Your task to perform on an android device: Go to Amazon Image 0: 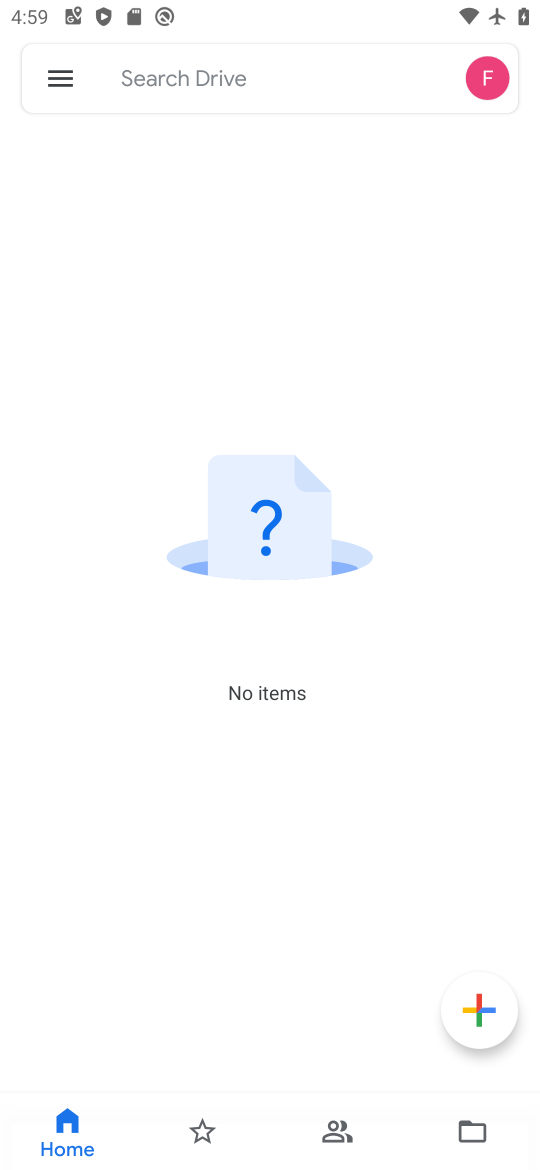
Step 0: press home button
Your task to perform on an android device: Go to Amazon Image 1: 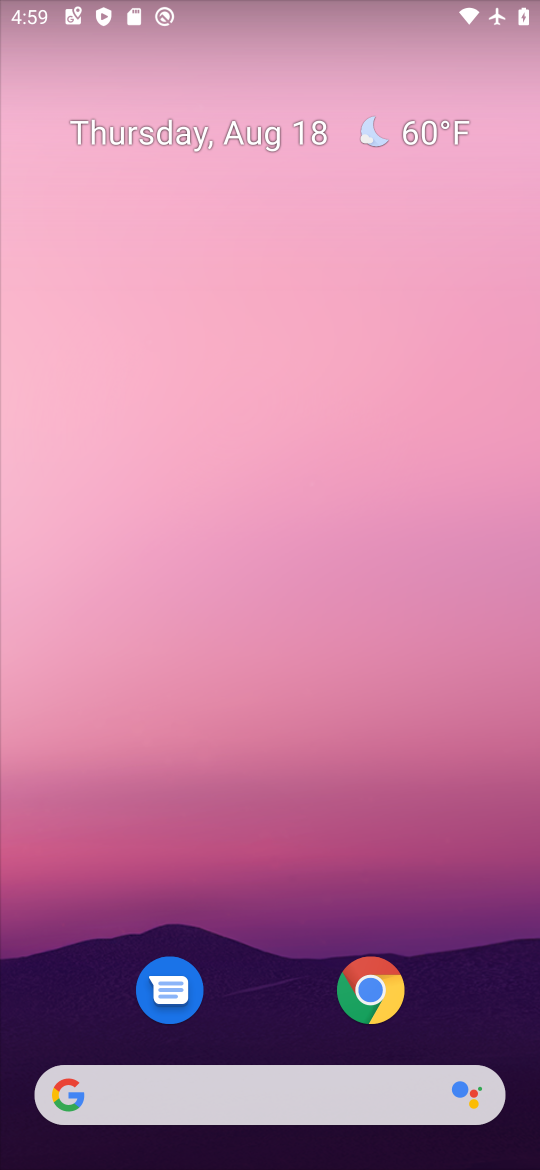
Step 1: drag from (287, 850) to (337, 97)
Your task to perform on an android device: Go to Amazon Image 2: 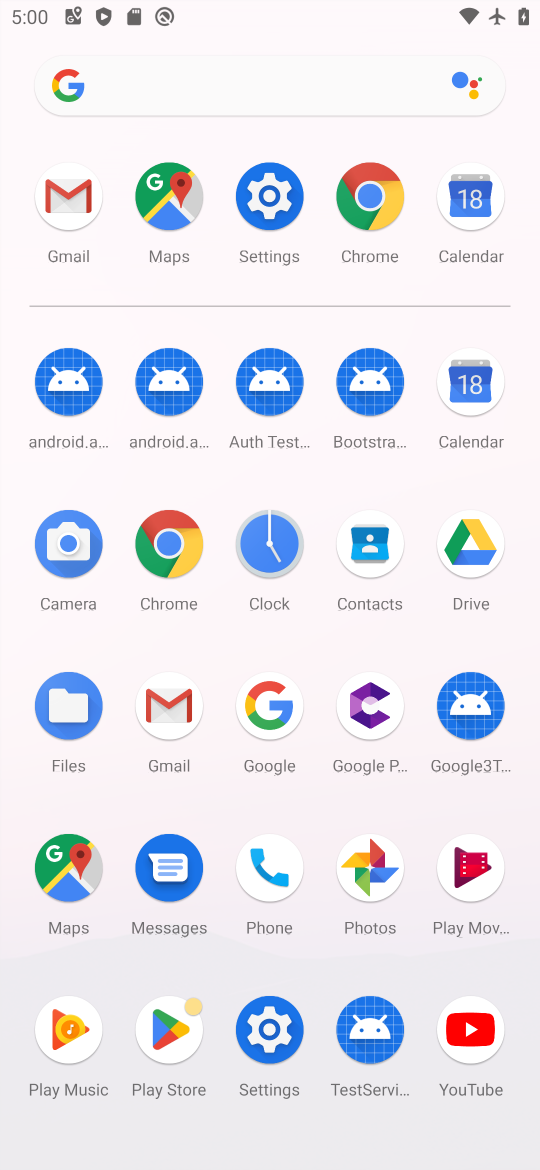
Step 2: click (172, 526)
Your task to perform on an android device: Go to Amazon Image 3: 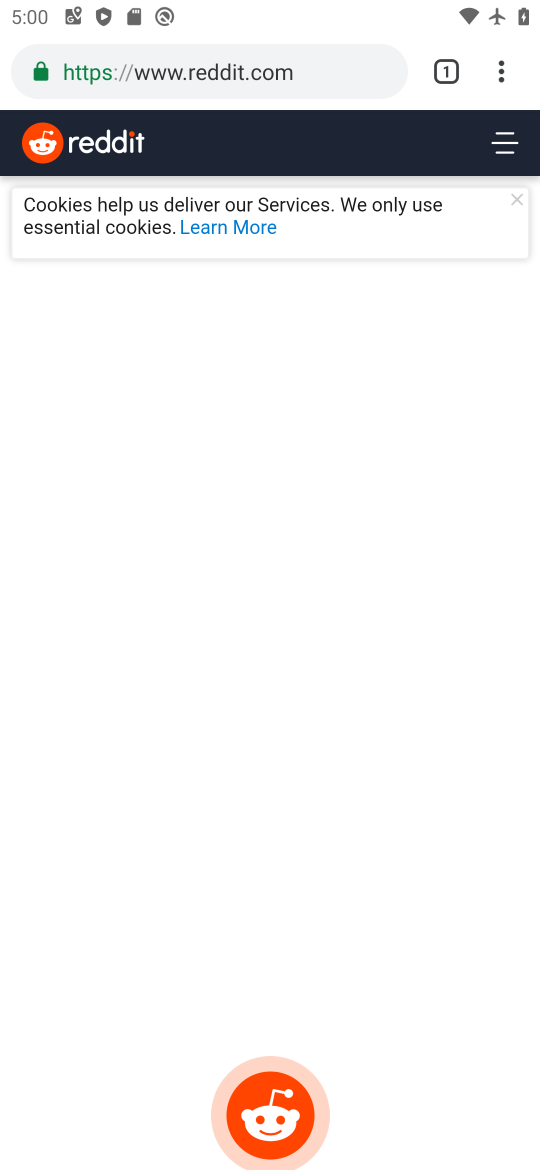
Step 3: click (335, 57)
Your task to perform on an android device: Go to Amazon Image 4: 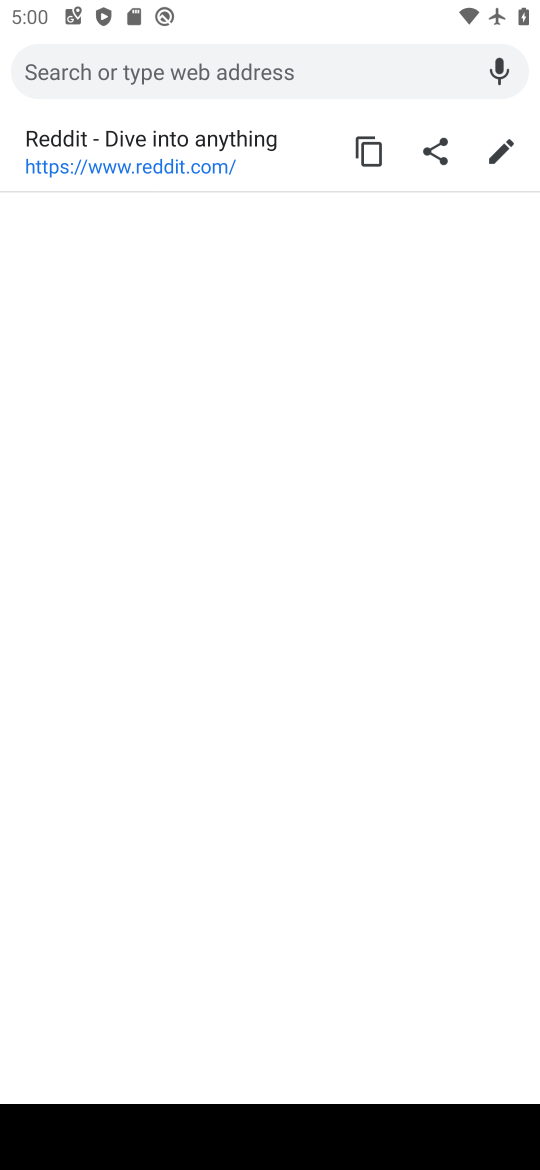
Step 4: type "amazon"
Your task to perform on an android device: Go to Amazon Image 5: 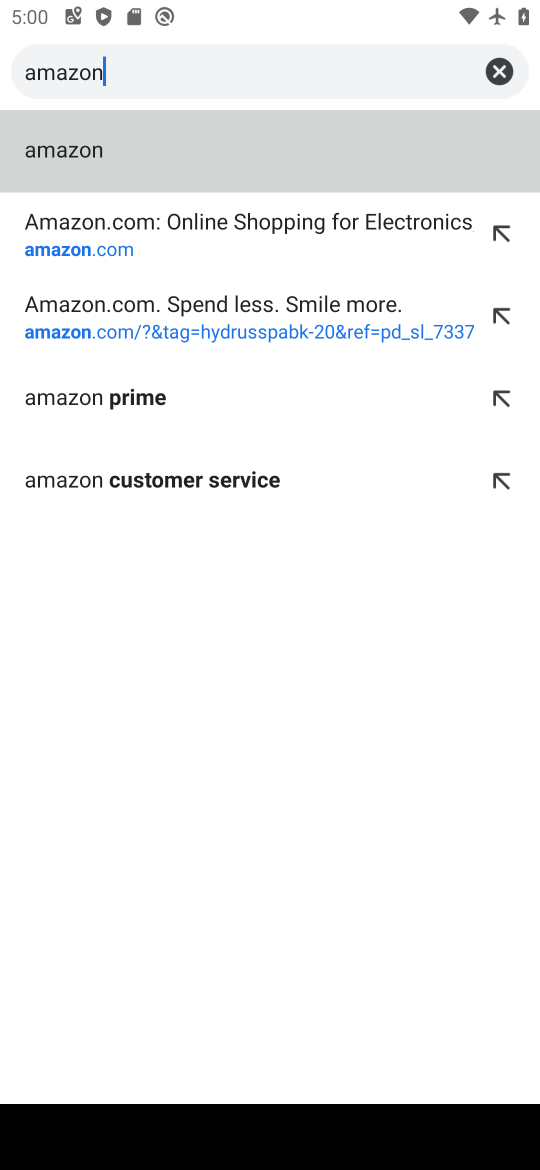
Step 5: click (97, 238)
Your task to perform on an android device: Go to Amazon Image 6: 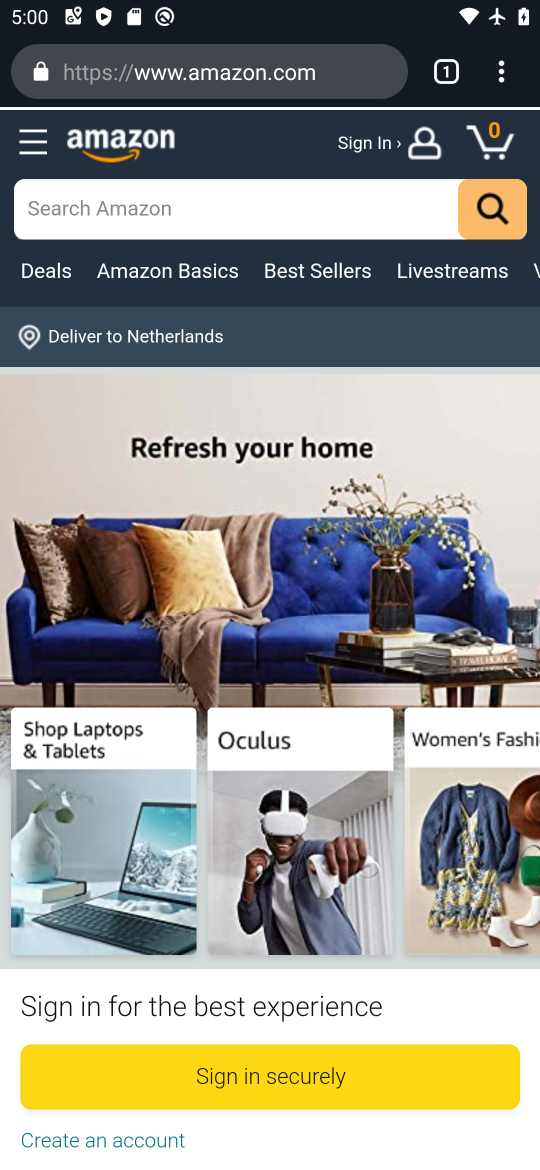
Step 6: task complete